Your task to perform on an android device: Turn off the flashlight Image 0: 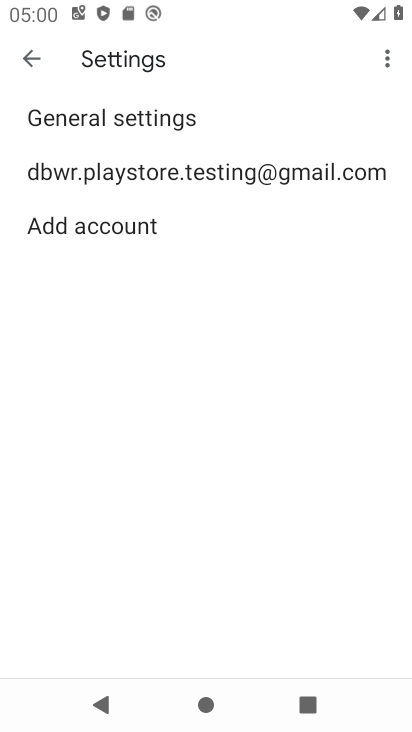
Step 0: press home button
Your task to perform on an android device: Turn off the flashlight Image 1: 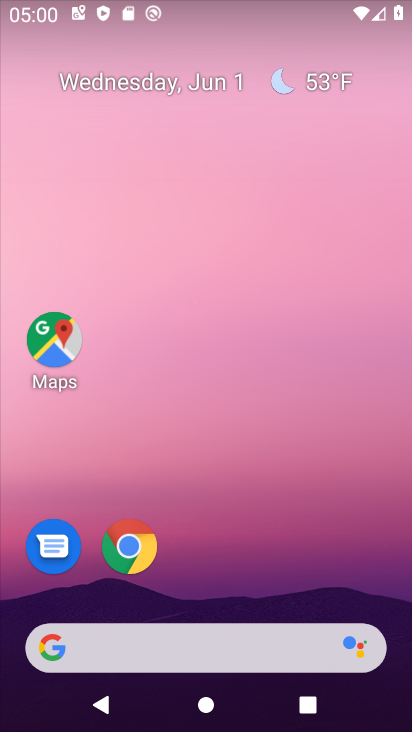
Step 1: drag from (256, 505) to (137, 97)
Your task to perform on an android device: Turn off the flashlight Image 2: 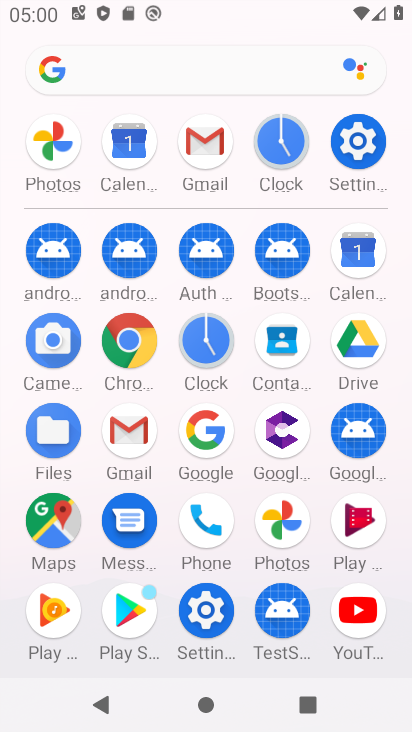
Step 2: click (344, 141)
Your task to perform on an android device: Turn off the flashlight Image 3: 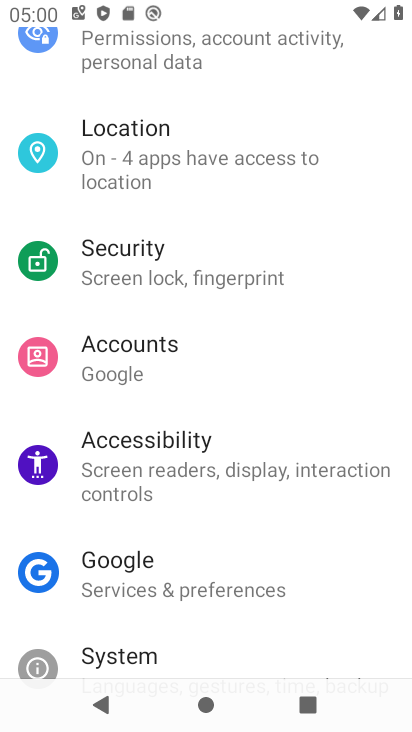
Step 3: drag from (156, 196) to (176, 724)
Your task to perform on an android device: Turn off the flashlight Image 4: 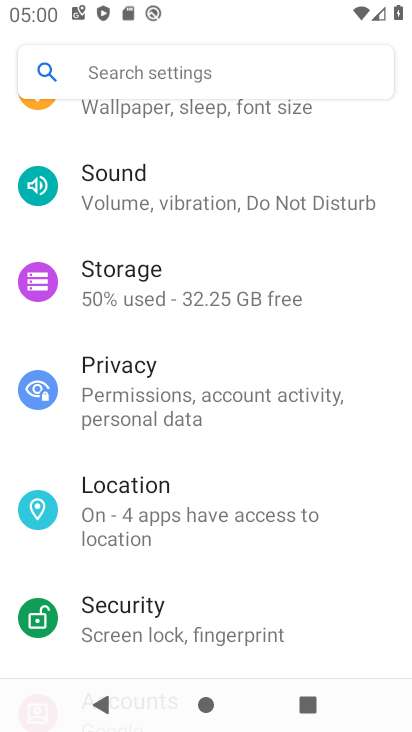
Step 4: drag from (194, 235) to (182, 580)
Your task to perform on an android device: Turn off the flashlight Image 5: 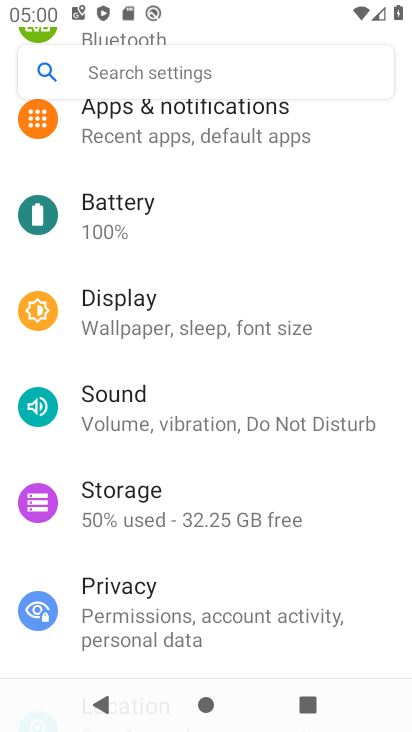
Step 5: click (126, 310)
Your task to perform on an android device: Turn off the flashlight Image 6: 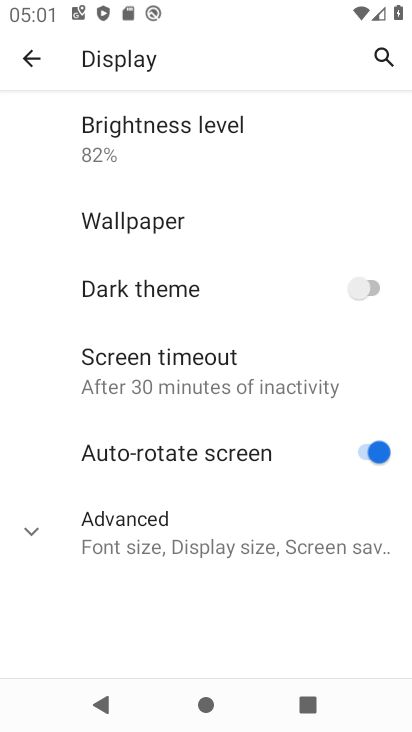
Step 6: click (124, 536)
Your task to perform on an android device: Turn off the flashlight Image 7: 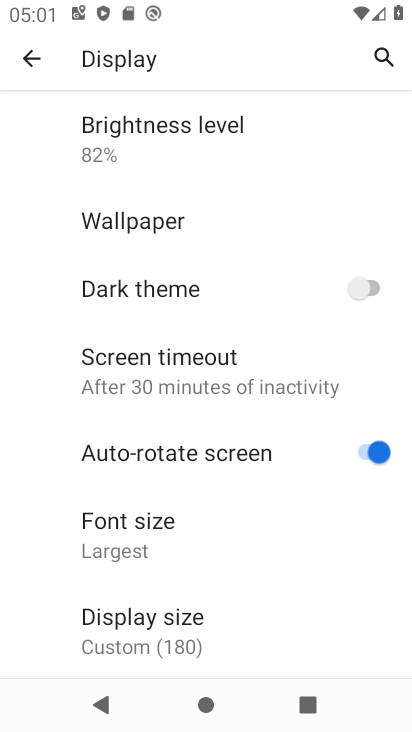
Step 7: task complete